Your task to perform on an android device: Do I have any events today? Image 0: 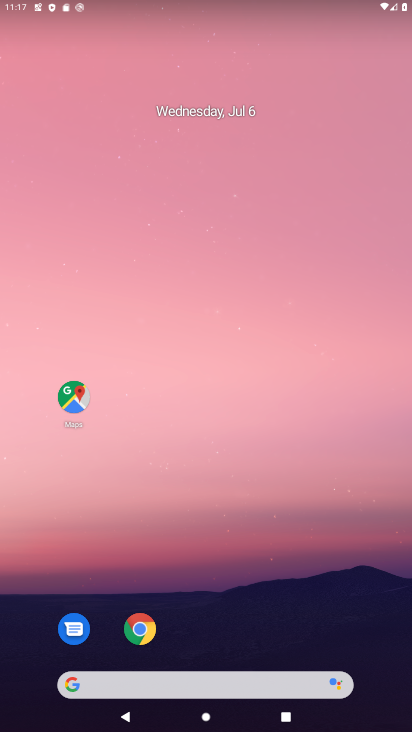
Step 0: drag from (221, 644) to (221, 151)
Your task to perform on an android device: Do I have any events today? Image 1: 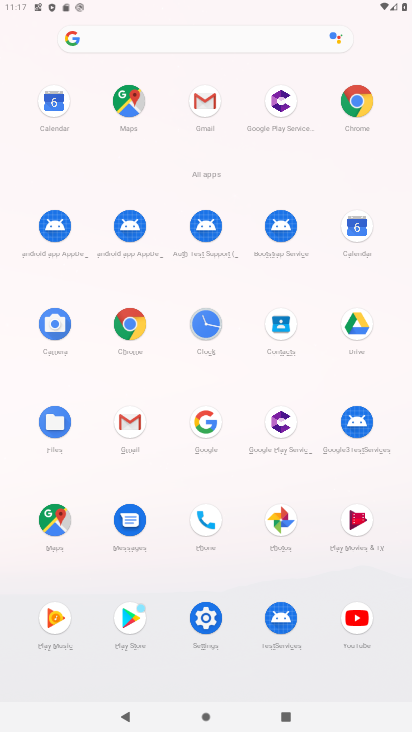
Step 1: click (55, 99)
Your task to perform on an android device: Do I have any events today? Image 2: 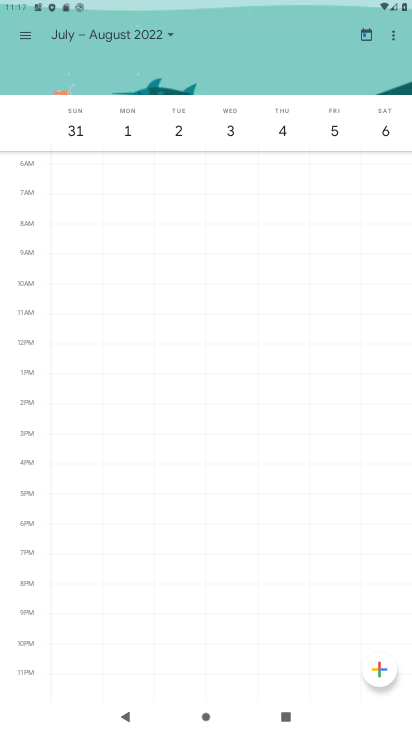
Step 2: click (365, 36)
Your task to perform on an android device: Do I have any events today? Image 3: 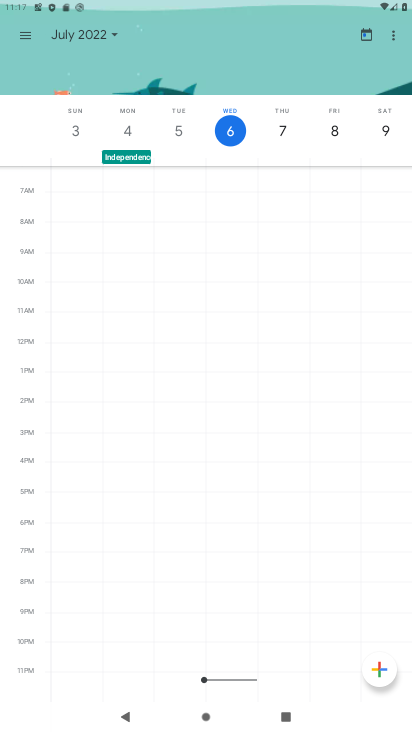
Step 3: click (232, 134)
Your task to perform on an android device: Do I have any events today? Image 4: 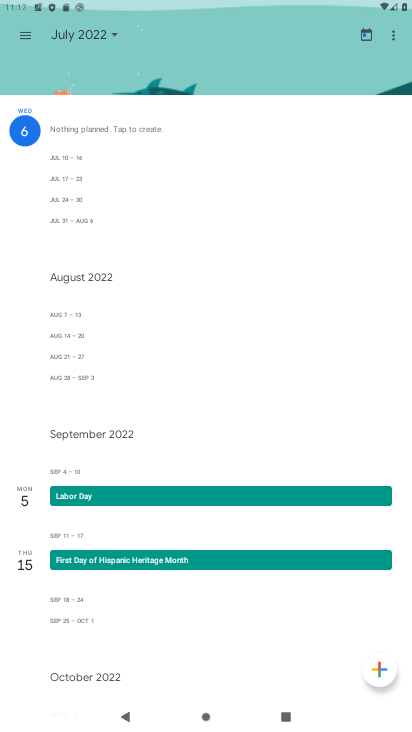
Step 4: click (35, 32)
Your task to perform on an android device: Do I have any events today? Image 5: 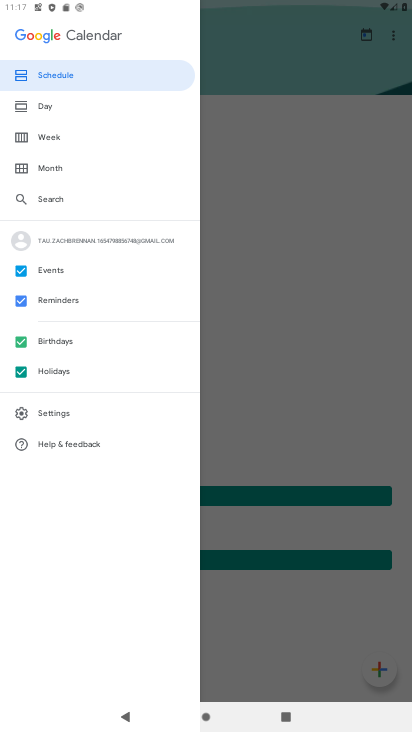
Step 5: click (66, 104)
Your task to perform on an android device: Do I have any events today? Image 6: 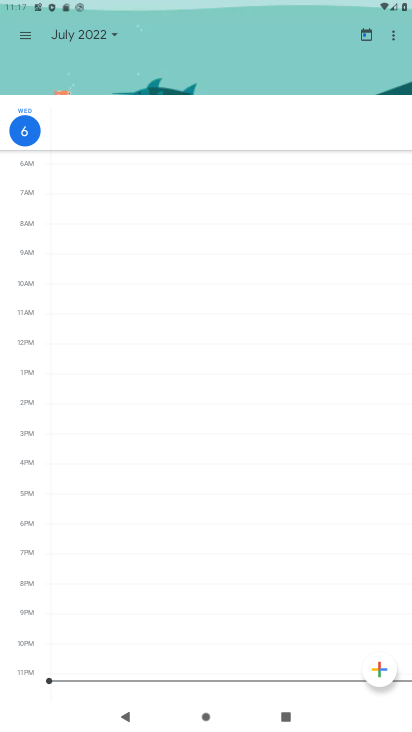
Step 6: task complete